Your task to perform on an android device: stop showing notifications on the lock screen Image 0: 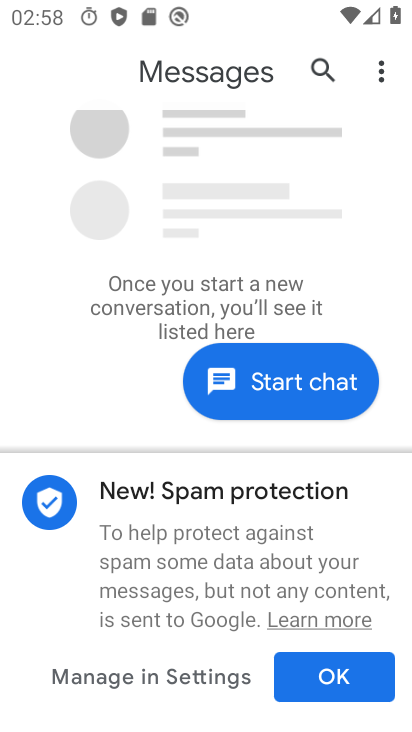
Step 0: press home button
Your task to perform on an android device: stop showing notifications on the lock screen Image 1: 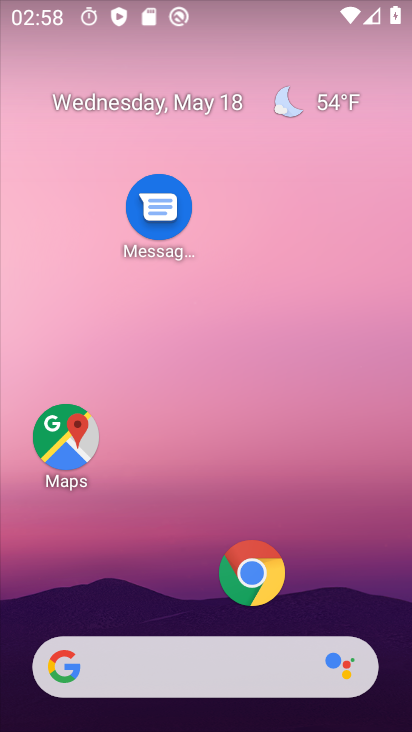
Step 1: drag from (182, 612) to (224, 256)
Your task to perform on an android device: stop showing notifications on the lock screen Image 2: 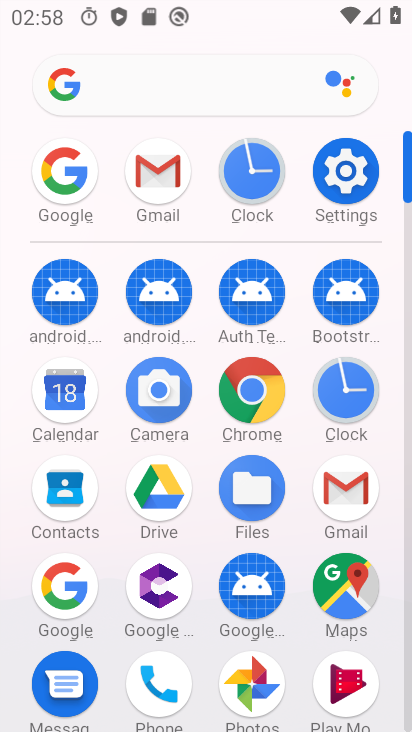
Step 2: click (331, 180)
Your task to perform on an android device: stop showing notifications on the lock screen Image 3: 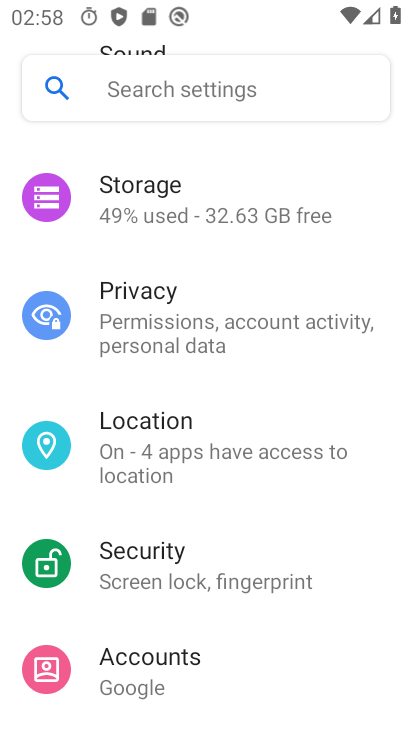
Step 3: drag from (205, 280) to (212, 539)
Your task to perform on an android device: stop showing notifications on the lock screen Image 4: 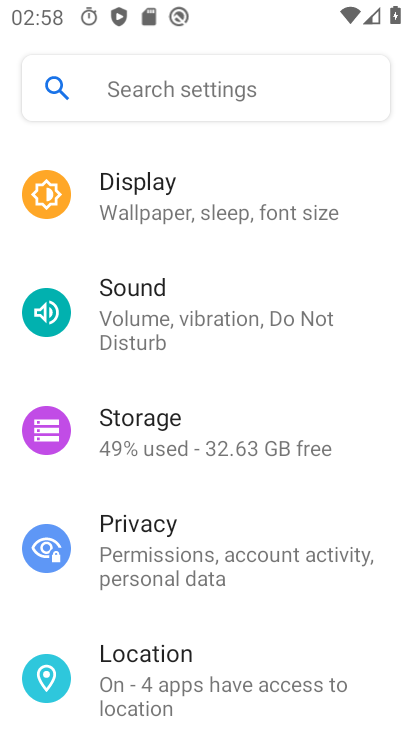
Step 4: drag from (204, 270) to (219, 530)
Your task to perform on an android device: stop showing notifications on the lock screen Image 5: 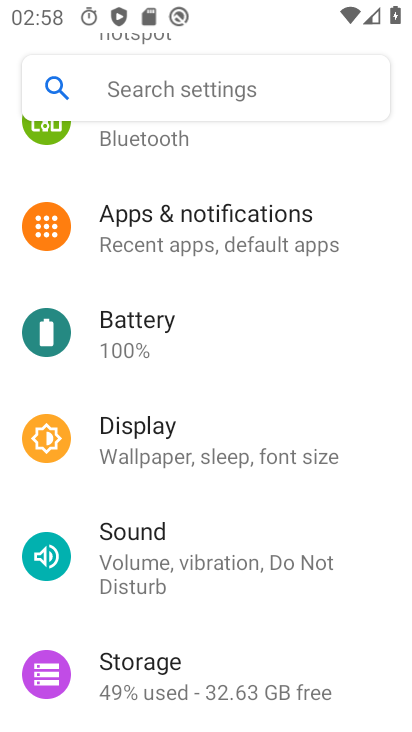
Step 5: click (198, 253)
Your task to perform on an android device: stop showing notifications on the lock screen Image 6: 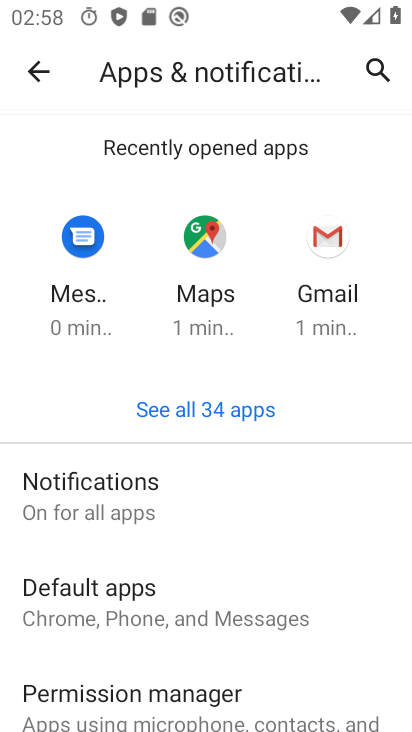
Step 6: click (191, 504)
Your task to perform on an android device: stop showing notifications on the lock screen Image 7: 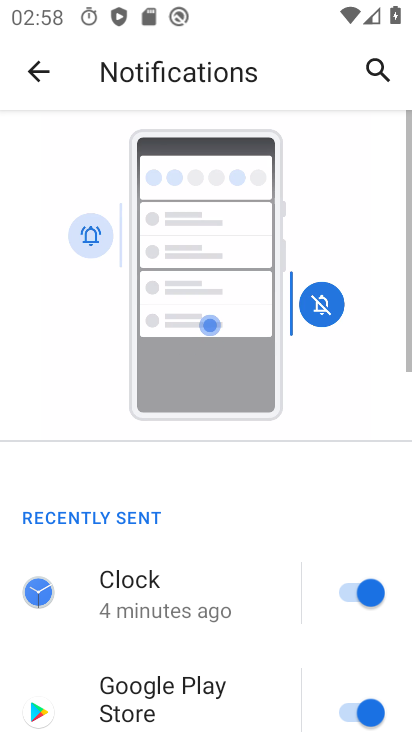
Step 7: drag from (205, 614) to (228, 294)
Your task to perform on an android device: stop showing notifications on the lock screen Image 8: 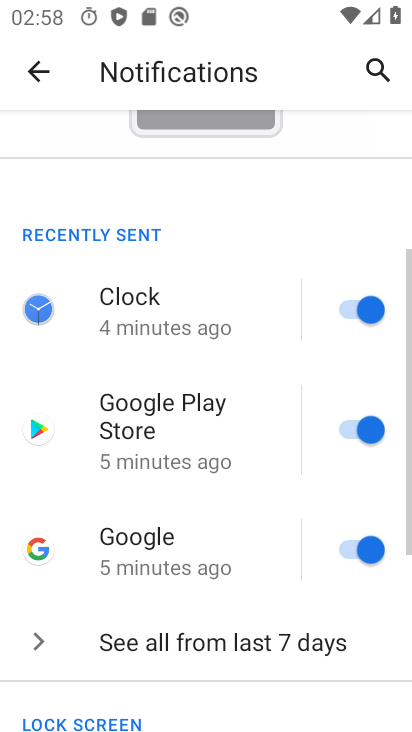
Step 8: drag from (221, 661) to (252, 377)
Your task to perform on an android device: stop showing notifications on the lock screen Image 9: 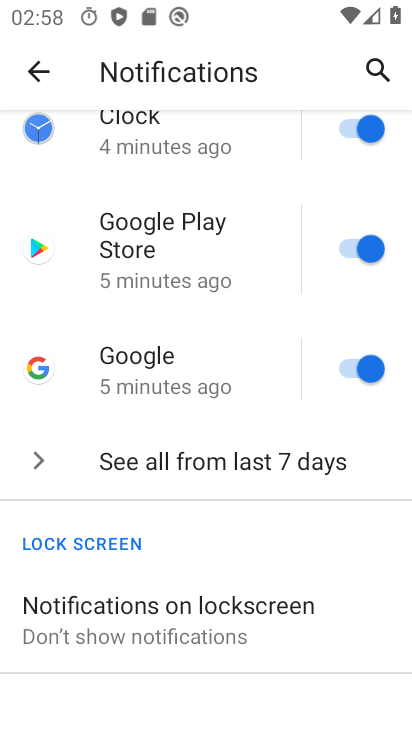
Step 9: click (228, 629)
Your task to perform on an android device: stop showing notifications on the lock screen Image 10: 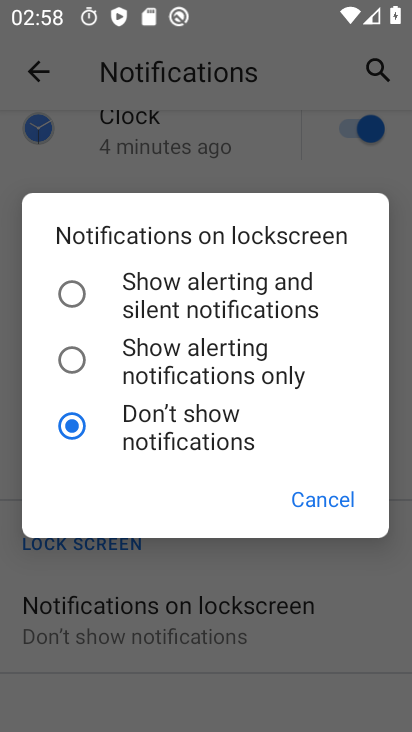
Step 10: task complete